Your task to perform on an android device: toggle priority inbox in the gmail app Image 0: 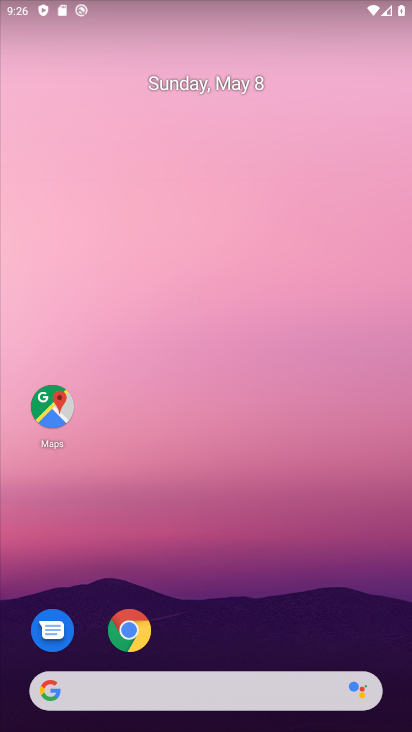
Step 0: drag from (338, 638) to (247, 108)
Your task to perform on an android device: toggle priority inbox in the gmail app Image 1: 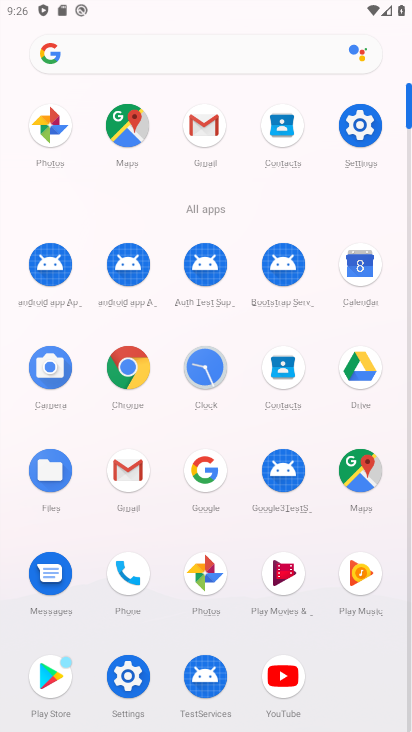
Step 1: click (116, 473)
Your task to perform on an android device: toggle priority inbox in the gmail app Image 2: 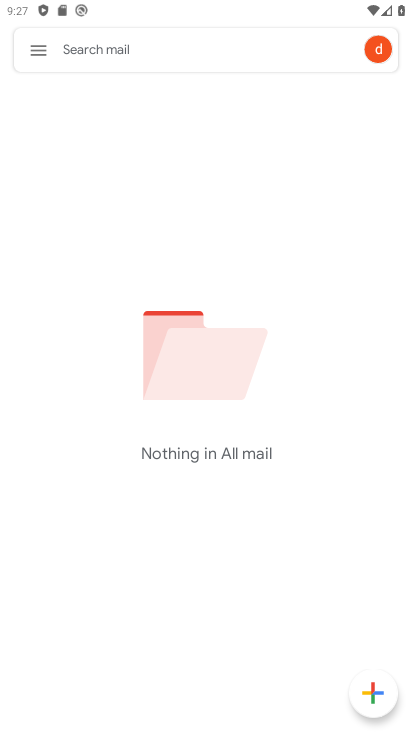
Step 2: click (45, 47)
Your task to perform on an android device: toggle priority inbox in the gmail app Image 3: 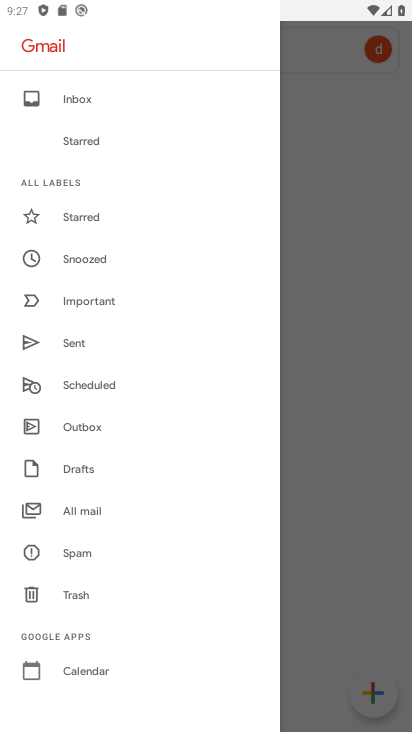
Step 3: drag from (132, 654) to (203, 182)
Your task to perform on an android device: toggle priority inbox in the gmail app Image 4: 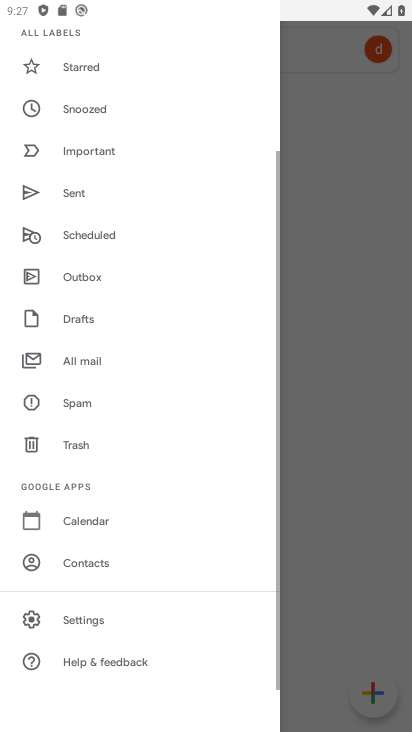
Step 4: click (99, 633)
Your task to perform on an android device: toggle priority inbox in the gmail app Image 5: 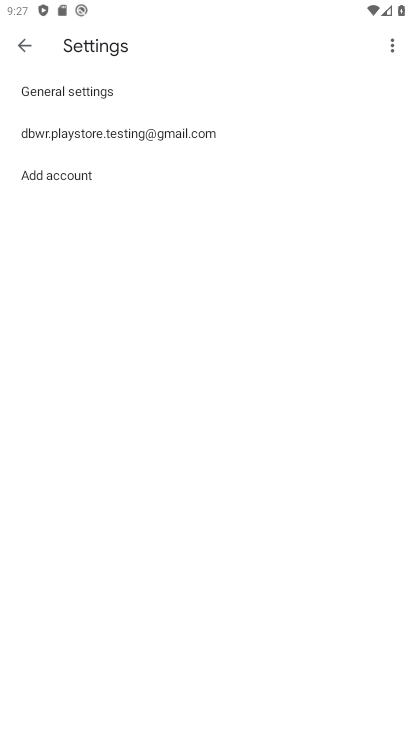
Step 5: click (156, 134)
Your task to perform on an android device: toggle priority inbox in the gmail app Image 6: 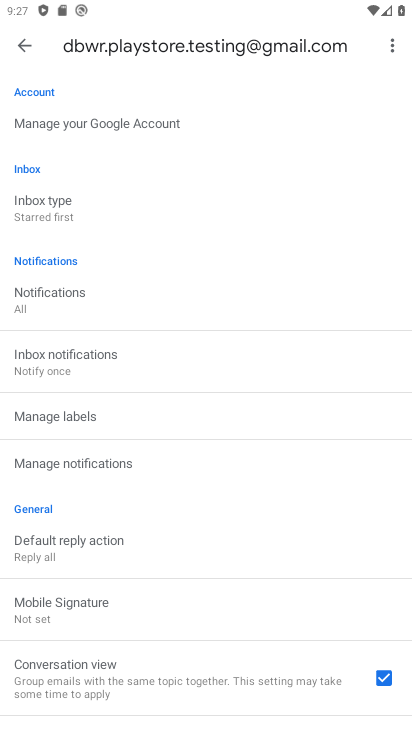
Step 6: click (37, 209)
Your task to perform on an android device: toggle priority inbox in the gmail app Image 7: 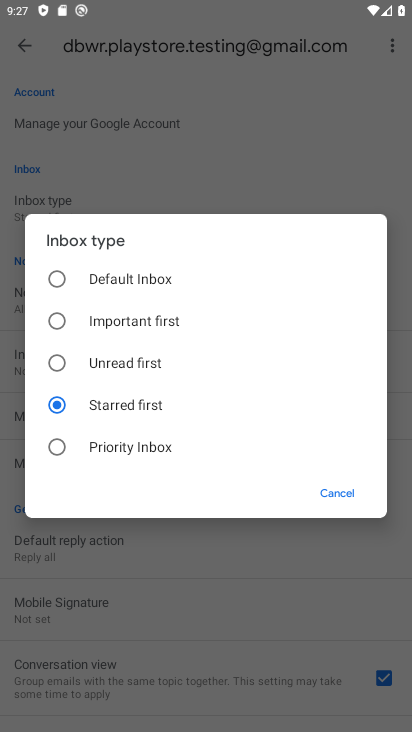
Step 7: click (118, 442)
Your task to perform on an android device: toggle priority inbox in the gmail app Image 8: 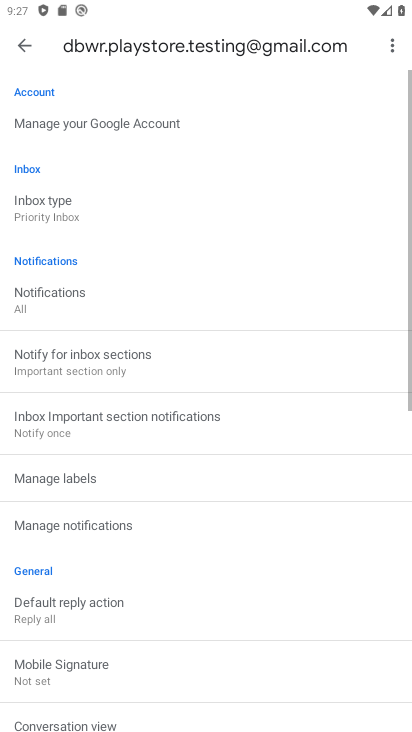
Step 8: task complete